Your task to perform on an android device: install app "Calculator" Image 0: 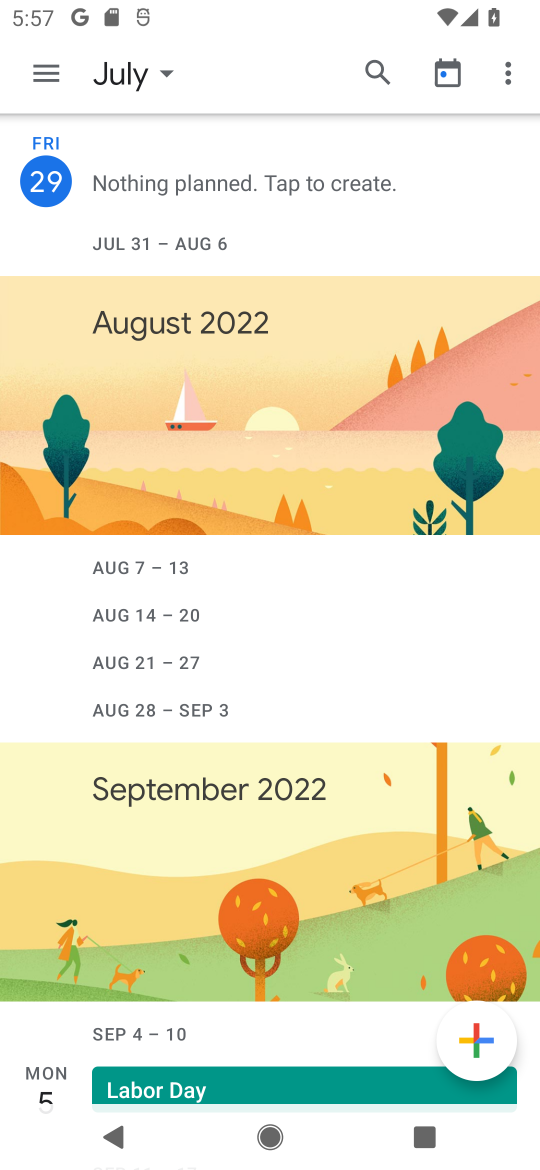
Step 0: press home button
Your task to perform on an android device: install app "Calculator" Image 1: 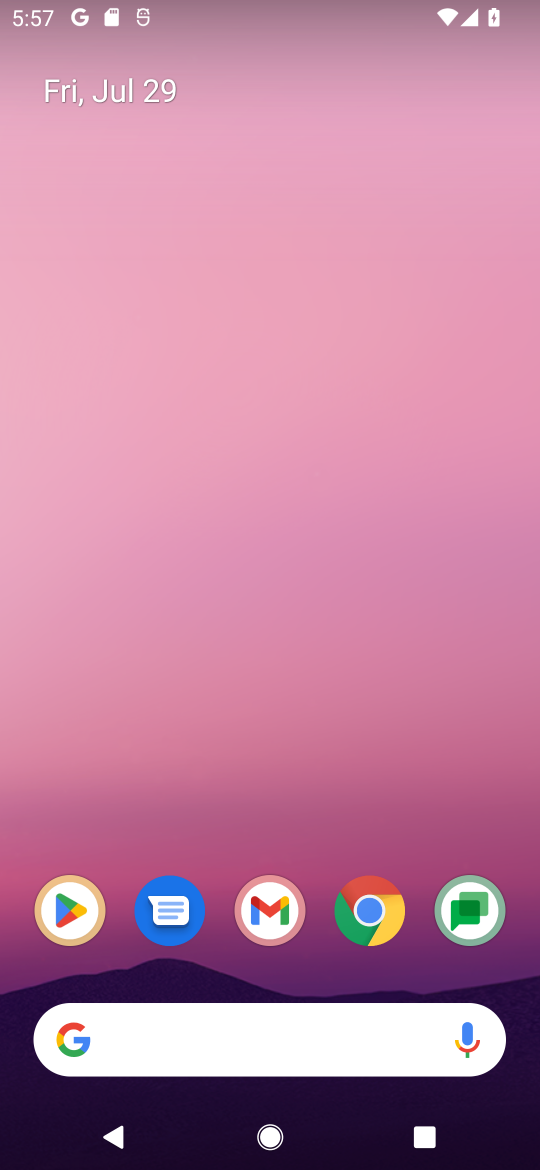
Step 1: click (60, 918)
Your task to perform on an android device: install app "Calculator" Image 2: 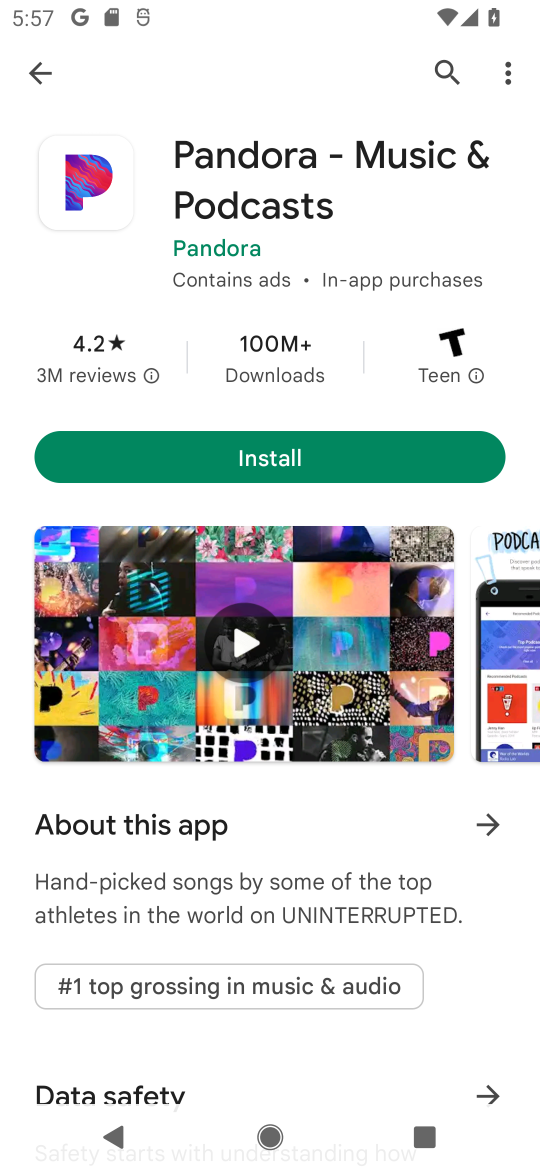
Step 2: click (442, 81)
Your task to perform on an android device: install app "Calculator" Image 3: 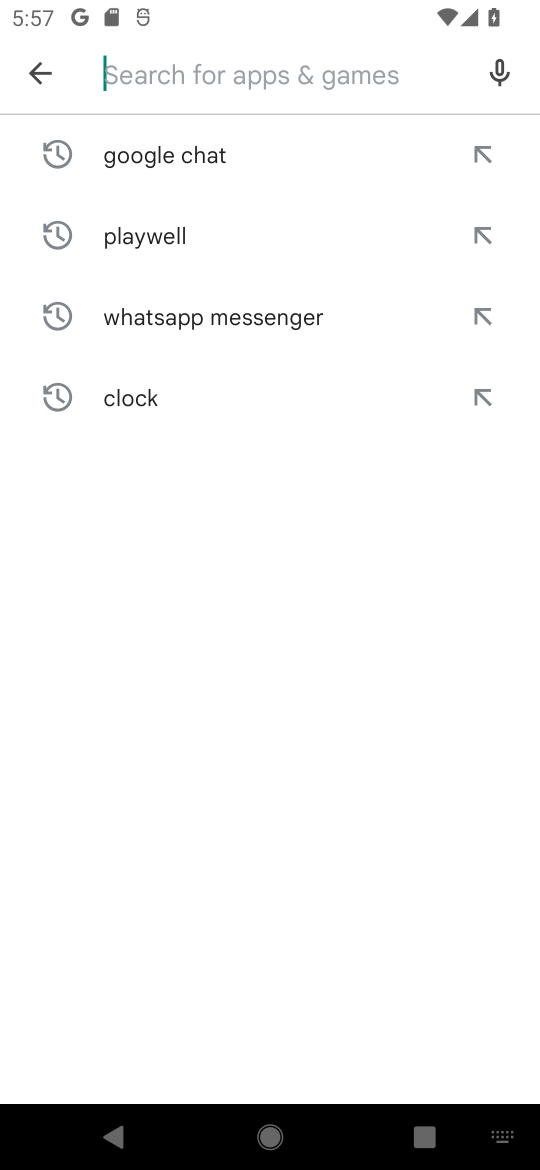
Step 3: type "calculator"
Your task to perform on an android device: install app "Calculator" Image 4: 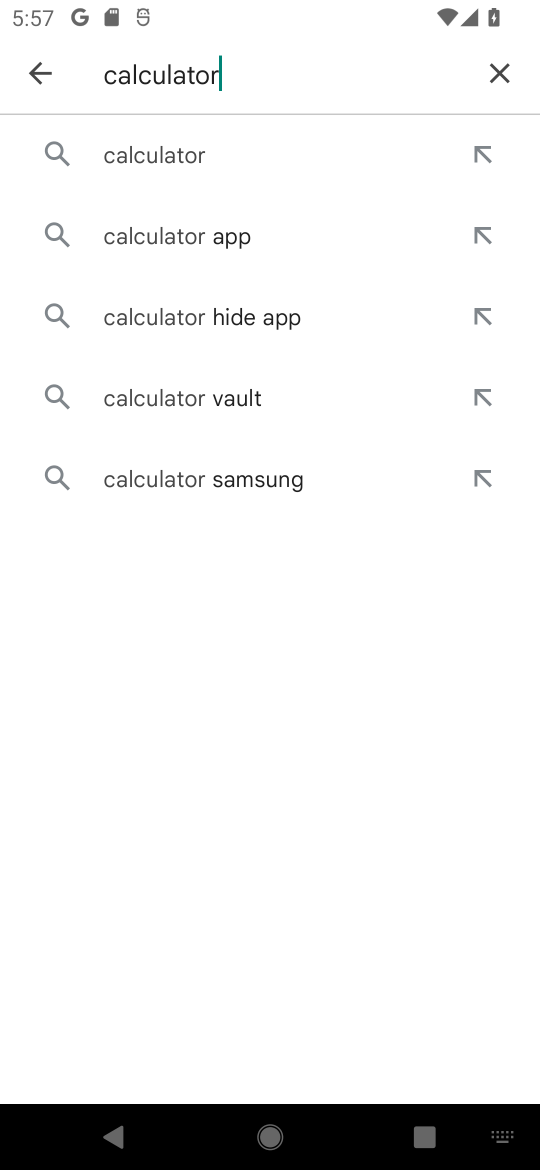
Step 4: click (260, 149)
Your task to perform on an android device: install app "Calculator" Image 5: 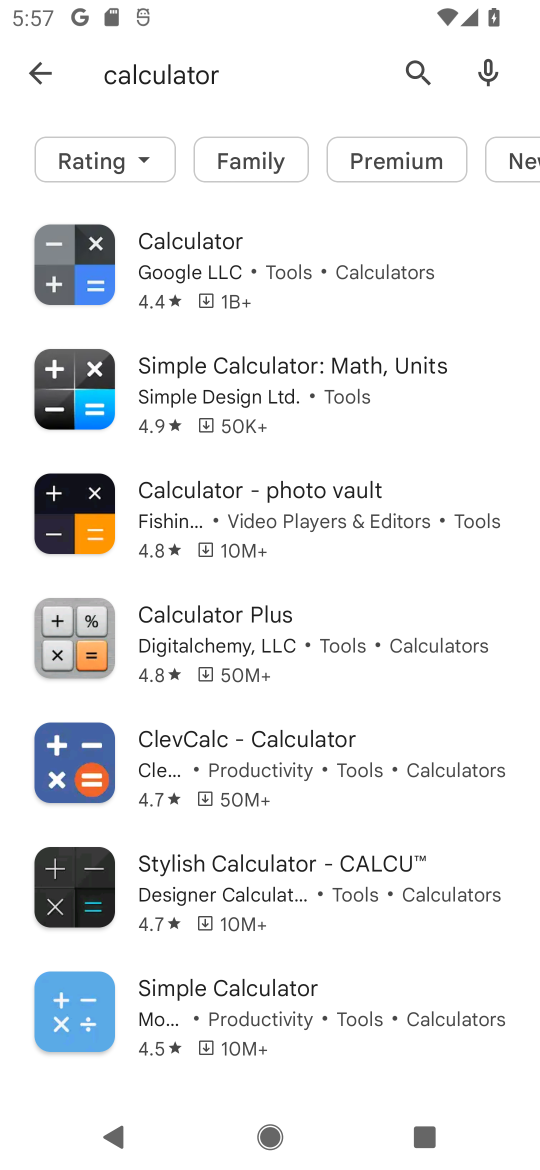
Step 5: click (176, 237)
Your task to perform on an android device: install app "Calculator" Image 6: 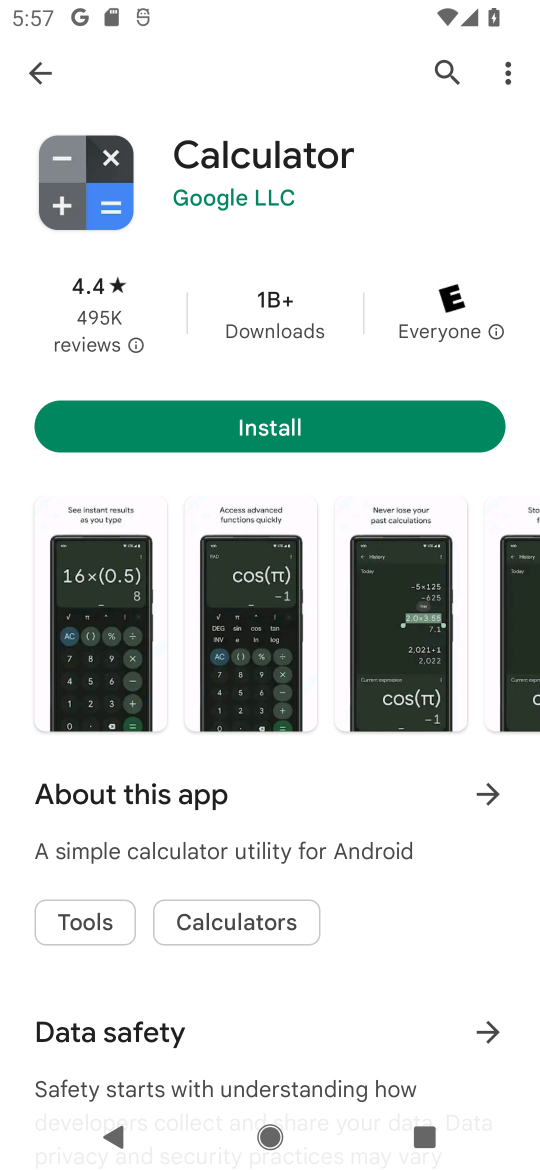
Step 6: click (224, 418)
Your task to perform on an android device: install app "Calculator" Image 7: 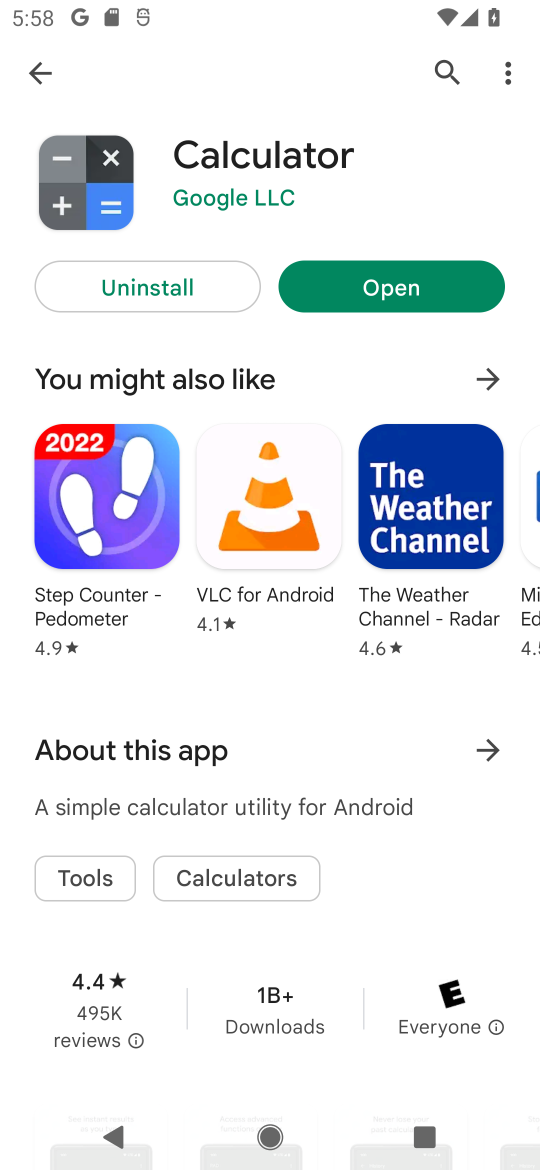
Step 7: task complete